Your task to perform on an android device: Show me popular videos on Youtube Image 0: 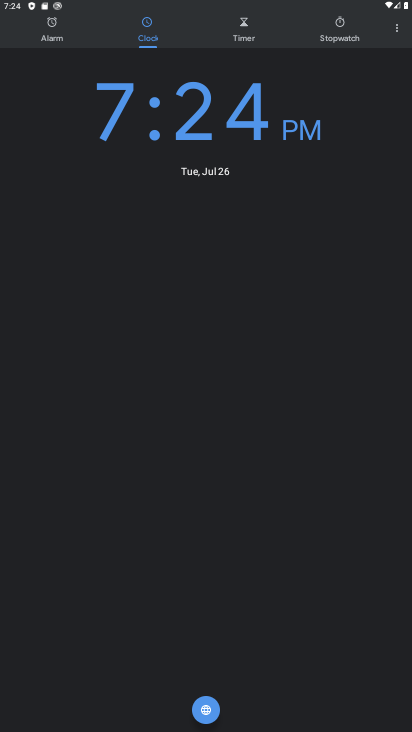
Step 0: press home button
Your task to perform on an android device: Show me popular videos on Youtube Image 1: 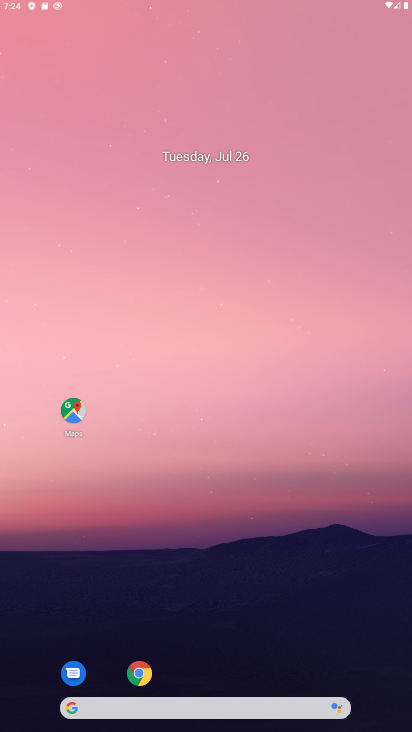
Step 1: drag from (385, 643) to (210, 2)
Your task to perform on an android device: Show me popular videos on Youtube Image 2: 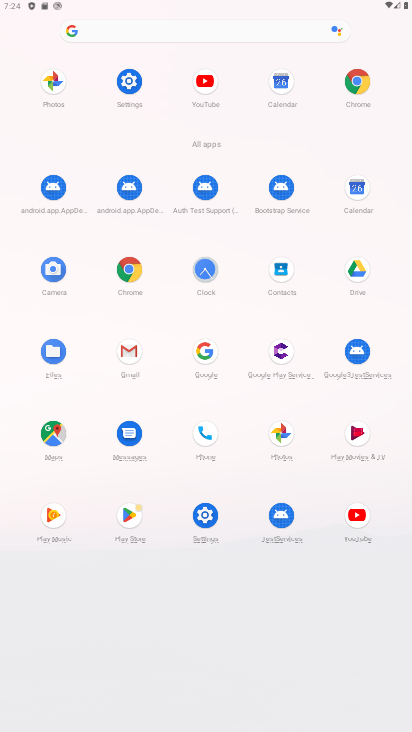
Step 2: click (358, 532)
Your task to perform on an android device: Show me popular videos on Youtube Image 3: 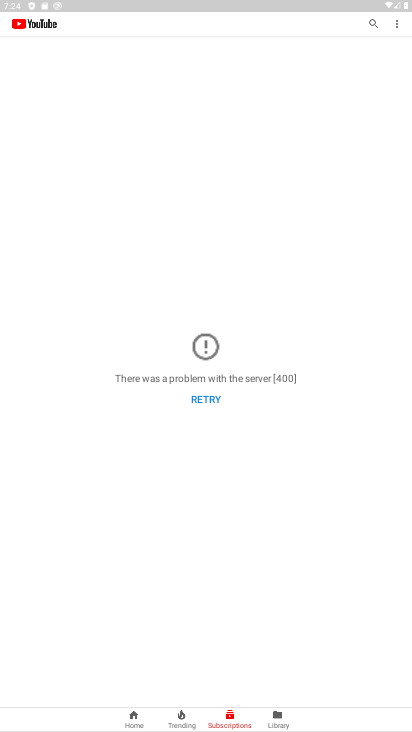
Step 3: click (131, 714)
Your task to perform on an android device: Show me popular videos on Youtube Image 4: 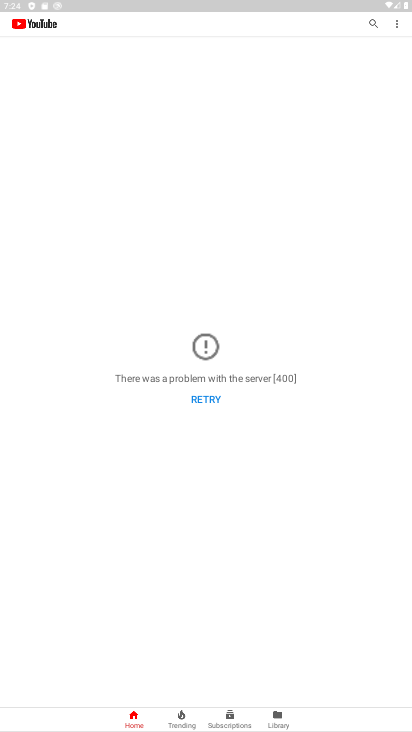
Step 4: click (221, 390)
Your task to perform on an android device: Show me popular videos on Youtube Image 5: 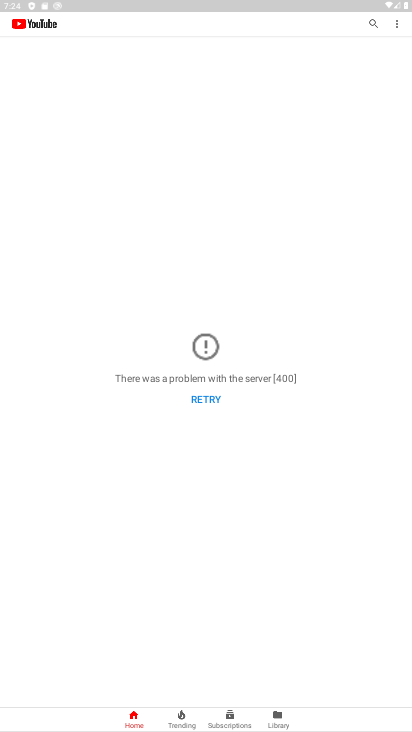
Step 5: click (203, 400)
Your task to perform on an android device: Show me popular videos on Youtube Image 6: 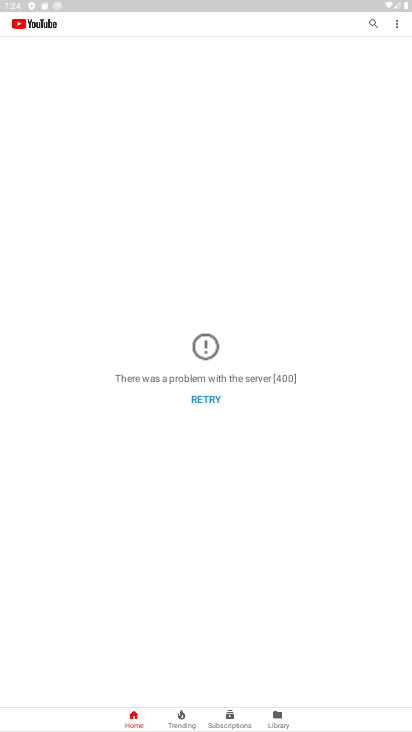
Step 6: task complete